Your task to perform on an android device: turn off translation in the chrome app Image 0: 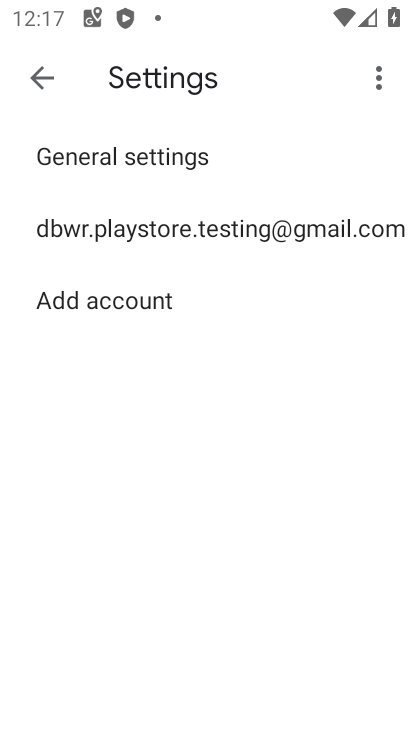
Step 0: press back button
Your task to perform on an android device: turn off translation in the chrome app Image 1: 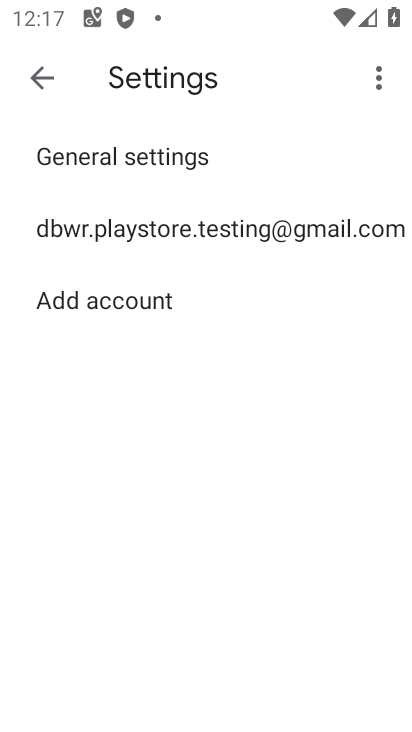
Step 1: press back button
Your task to perform on an android device: turn off translation in the chrome app Image 2: 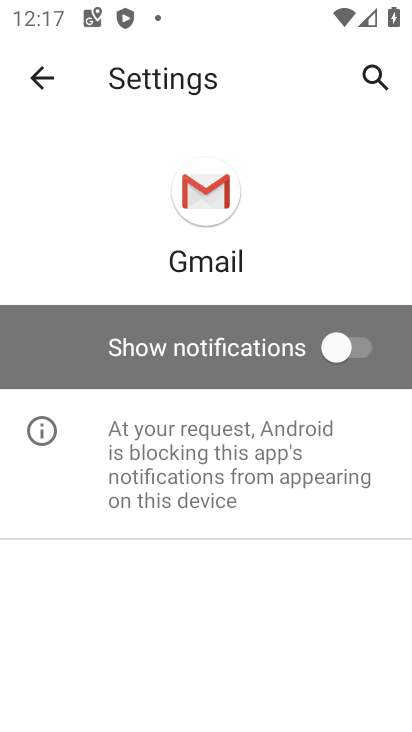
Step 2: press back button
Your task to perform on an android device: turn off translation in the chrome app Image 3: 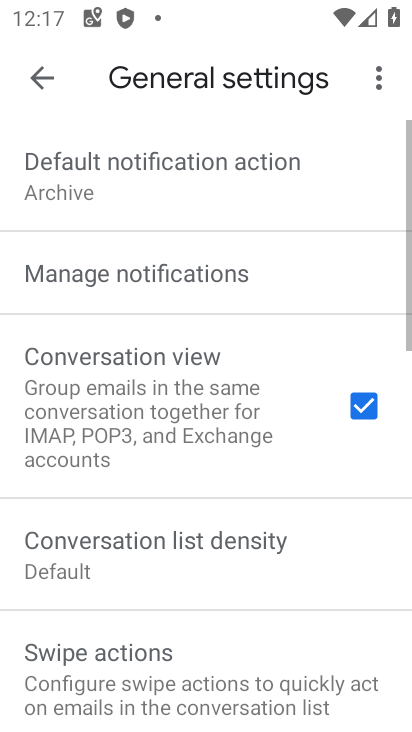
Step 3: press back button
Your task to perform on an android device: turn off translation in the chrome app Image 4: 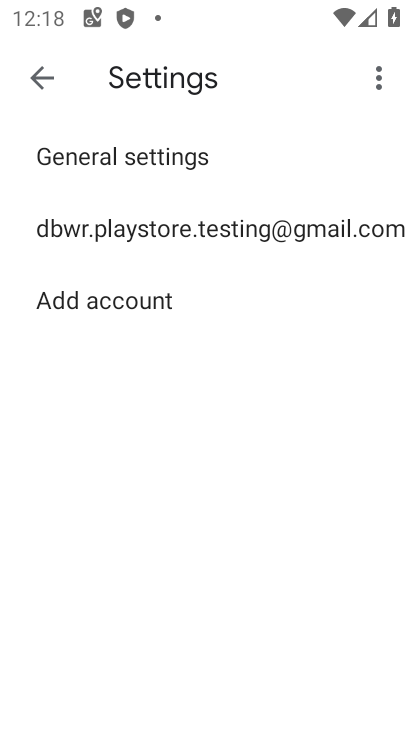
Step 4: press back button
Your task to perform on an android device: turn off translation in the chrome app Image 5: 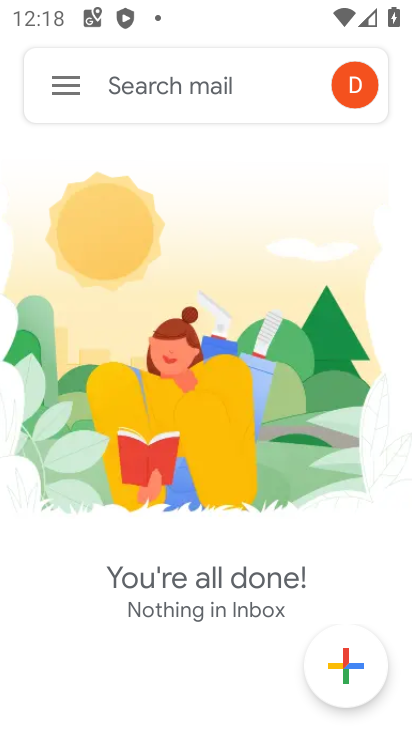
Step 5: press home button
Your task to perform on an android device: turn off translation in the chrome app Image 6: 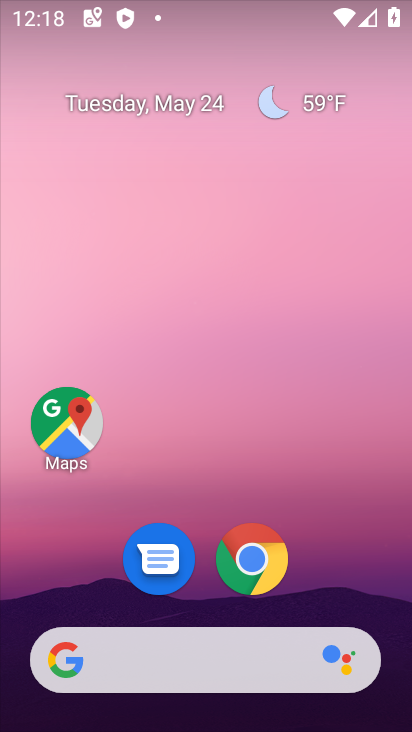
Step 6: drag from (394, 620) to (338, 231)
Your task to perform on an android device: turn off translation in the chrome app Image 7: 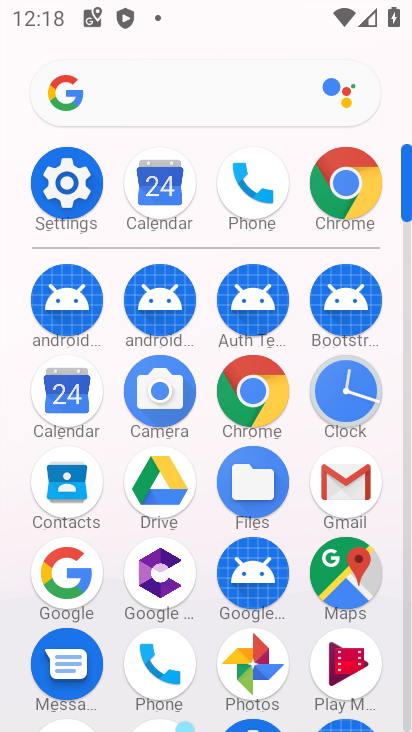
Step 7: click (256, 663)
Your task to perform on an android device: turn off translation in the chrome app Image 8: 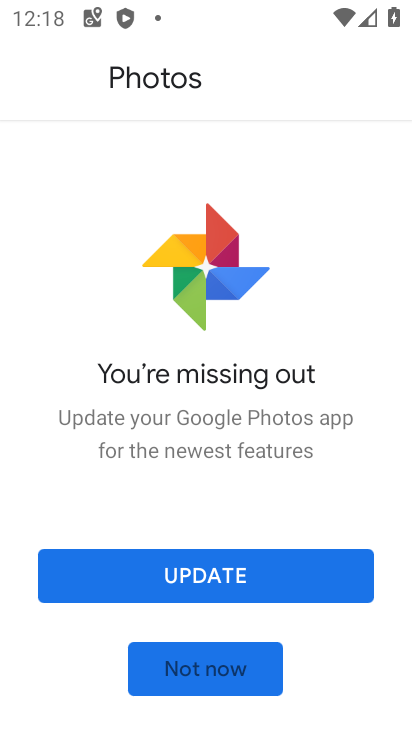
Step 8: click (297, 584)
Your task to perform on an android device: turn off translation in the chrome app Image 9: 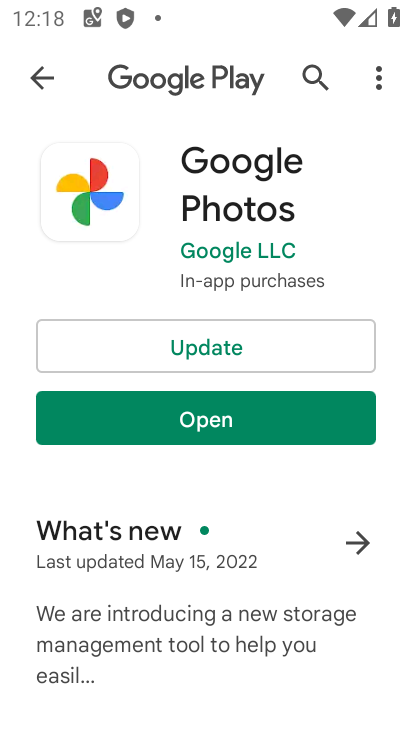
Step 9: click (265, 347)
Your task to perform on an android device: turn off translation in the chrome app Image 10: 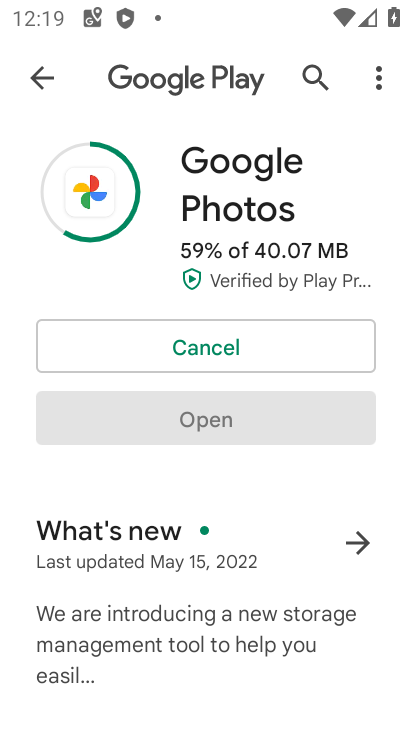
Step 10: press home button
Your task to perform on an android device: turn off translation in the chrome app Image 11: 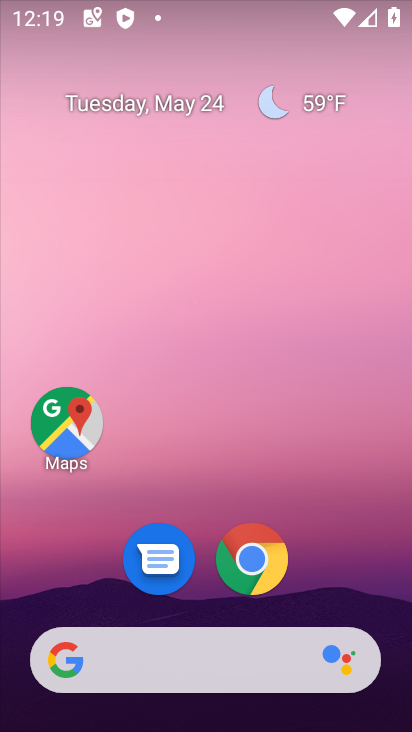
Step 11: click (254, 552)
Your task to perform on an android device: turn off translation in the chrome app Image 12: 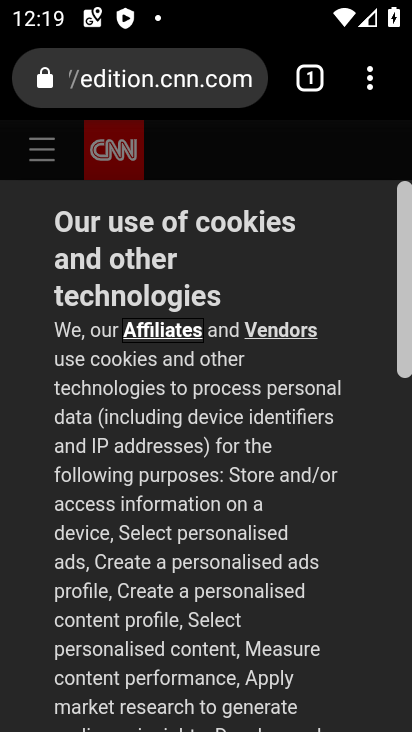
Step 12: click (365, 79)
Your task to perform on an android device: turn off translation in the chrome app Image 13: 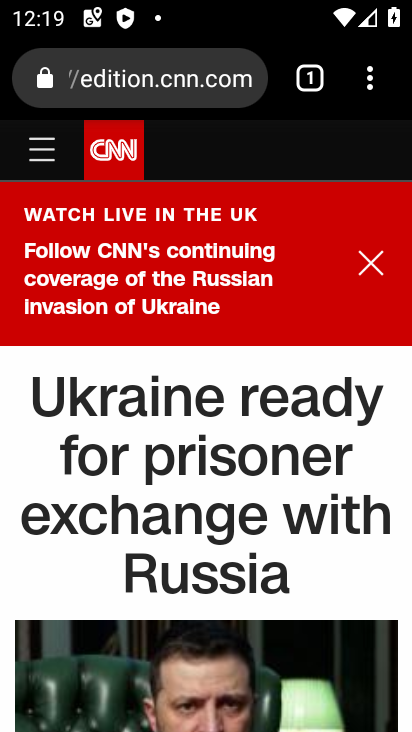
Step 13: click (370, 79)
Your task to perform on an android device: turn off translation in the chrome app Image 14: 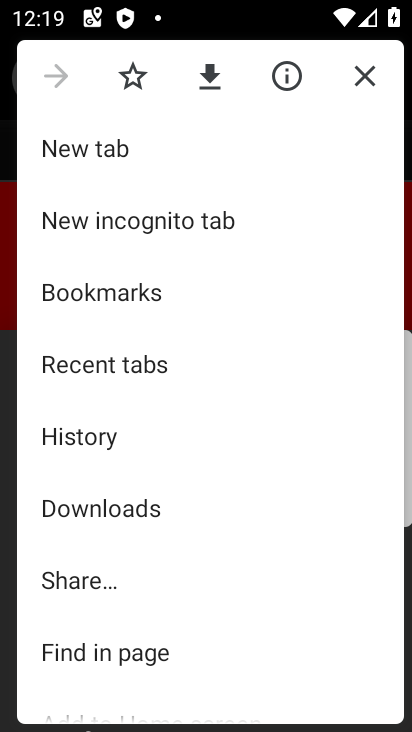
Step 14: drag from (291, 670) to (283, 311)
Your task to perform on an android device: turn off translation in the chrome app Image 15: 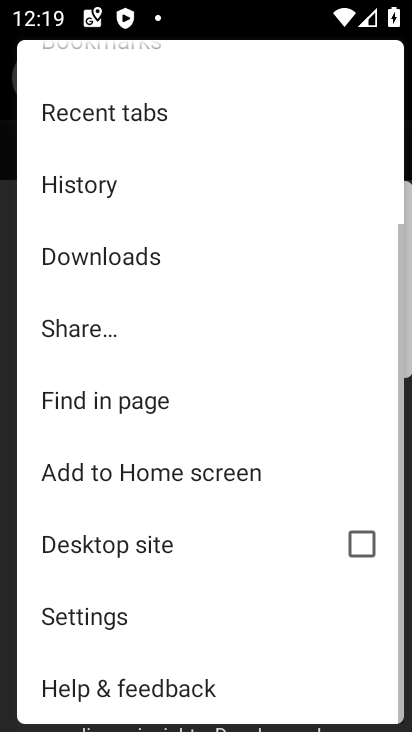
Step 15: drag from (256, 659) to (251, 319)
Your task to perform on an android device: turn off translation in the chrome app Image 16: 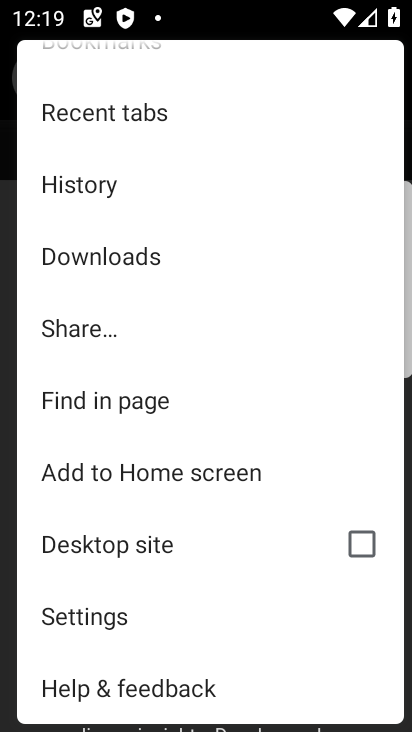
Step 16: click (85, 615)
Your task to perform on an android device: turn off translation in the chrome app Image 17: 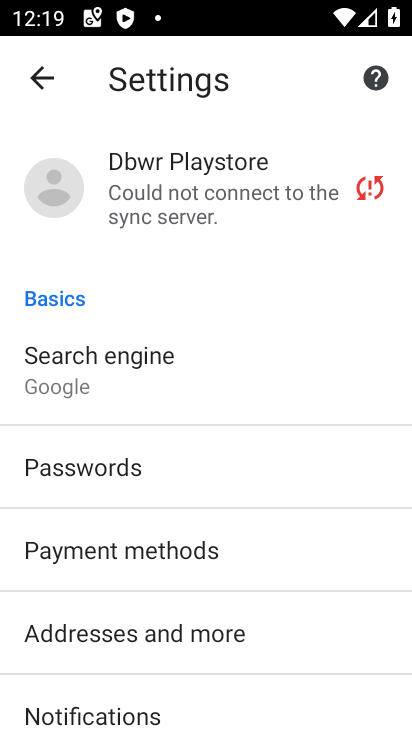
Step 17: drag from (305, 691) to (254, 351)
Your task to perform on an android device: turn off translation in the chrome app Image 18: 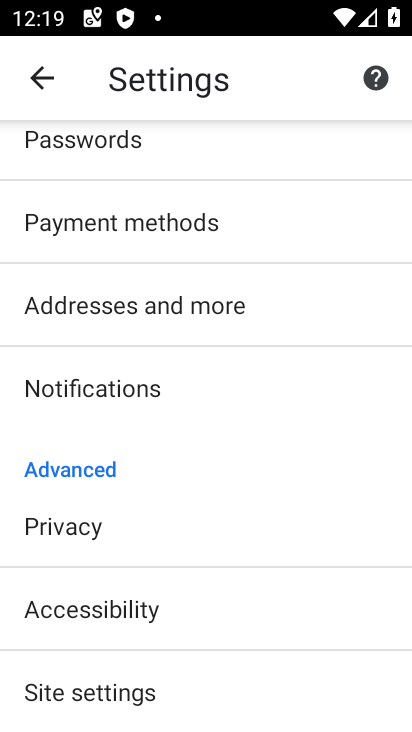
Step 18: drag from (276, 514) to (269, 374)
Your task to perform on an android device: turn off translation in the chrome app Image 19: 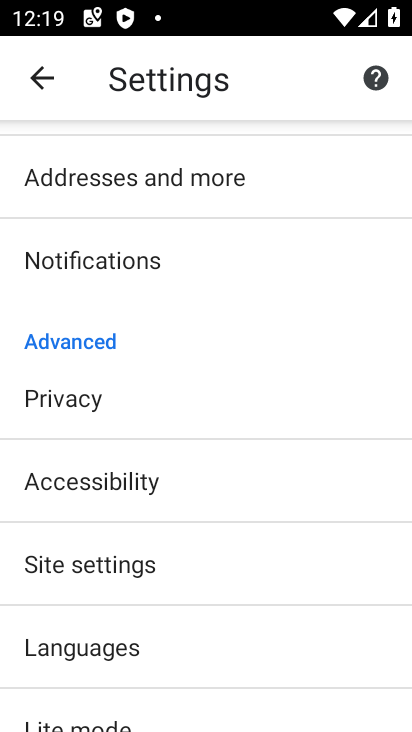
Step 19: click (111, 655)
Your task to perform on an android device: turn off translation in the chrome app Image 20: 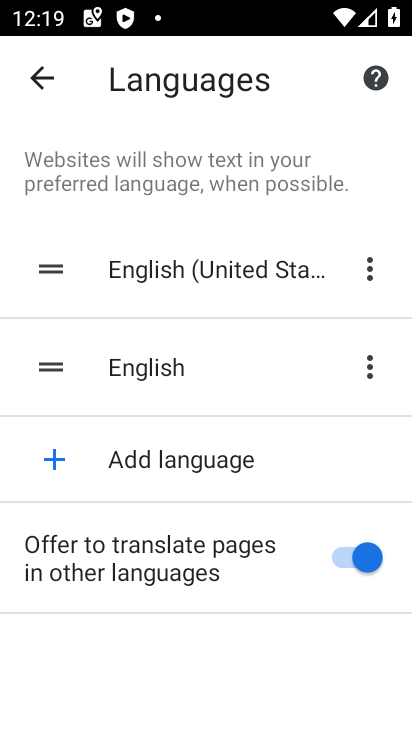
Step 20: click (340, 562)
Your task to perform on an android device: turn off translation in the chrome app Image 21: 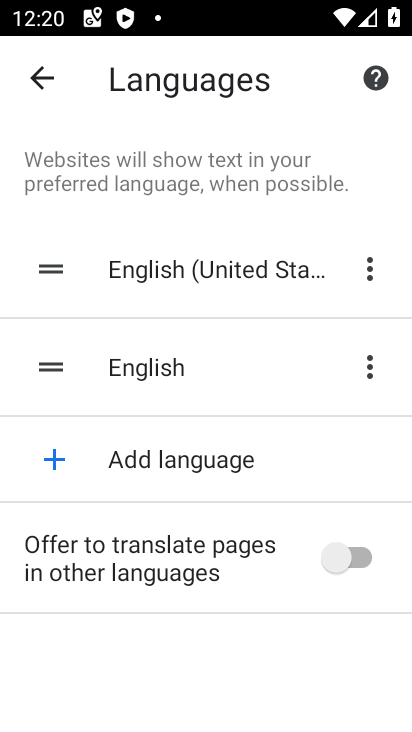
Step 21: task complete